Your task to perform on an android device: Open Wikipedia Image 0: 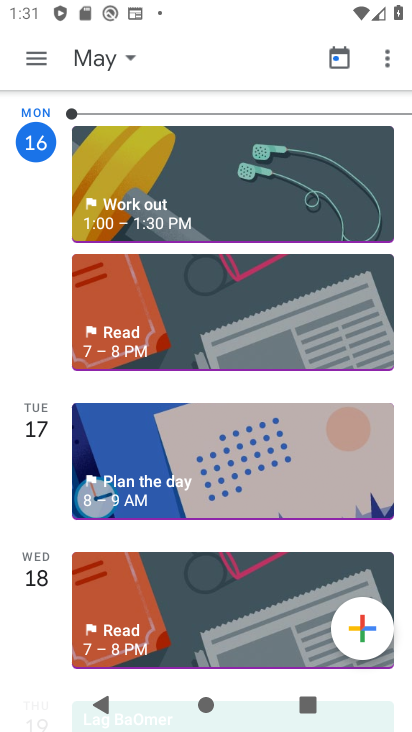
Step 0: press home button
Your task to perform on an android device: Open Wikipedia Image 1: 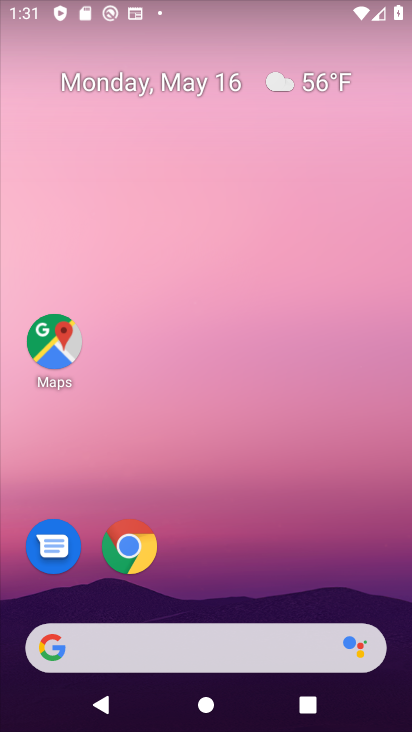
Step 1: click (130, 562)
Your task to perform on an android device: Open Wikipedia Image 2: 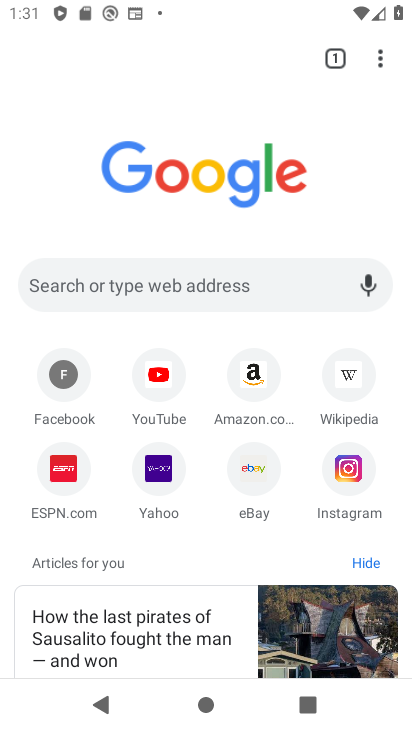
Step 2: click (356, 384)
Your task to perform on an android device: Open Wikipedia Image 3: 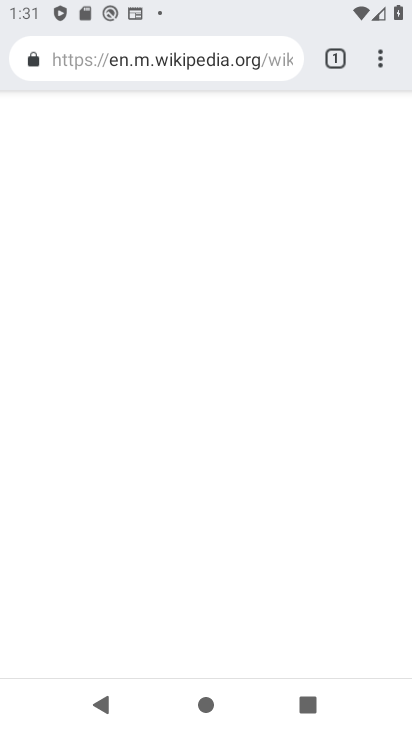
Step 3: task complete